Your task to perform on an android device: install app "Firefox Browser" Image 0: 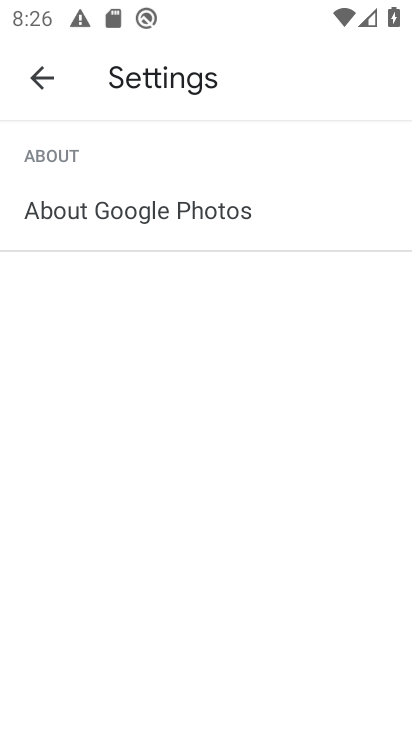
Step 0: press home button
Your task to perform on an android device: install app "Firefox Browser" Image 1: 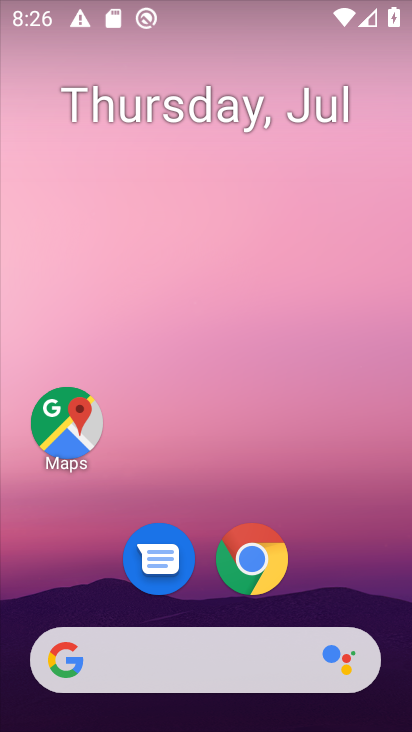
Step 1: drag from (209, 554) to (181, 0)
Your task to perform on an android device: install app "Firefox Browser" Image 2: 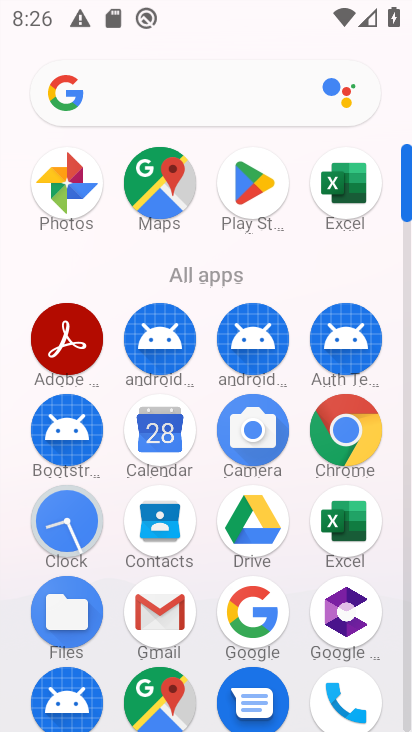
Step 2: click (251, 226)
Your task to perform on an android device: install app "Firefox Browser" Image 3: 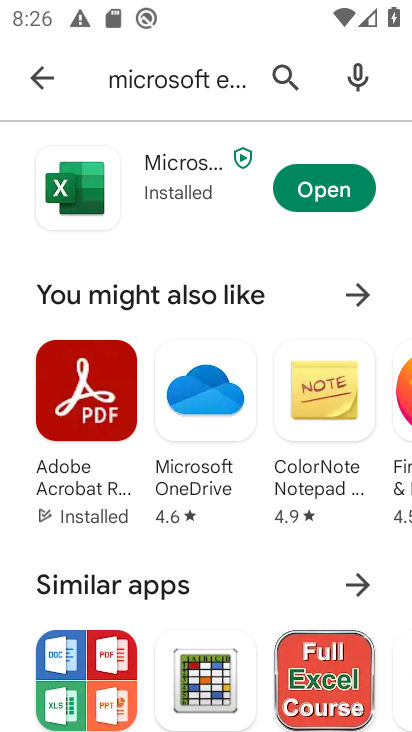
Step 3: click (286, 73)
Your task to perform on an android device: install app "Firefox Browser" Image 4: 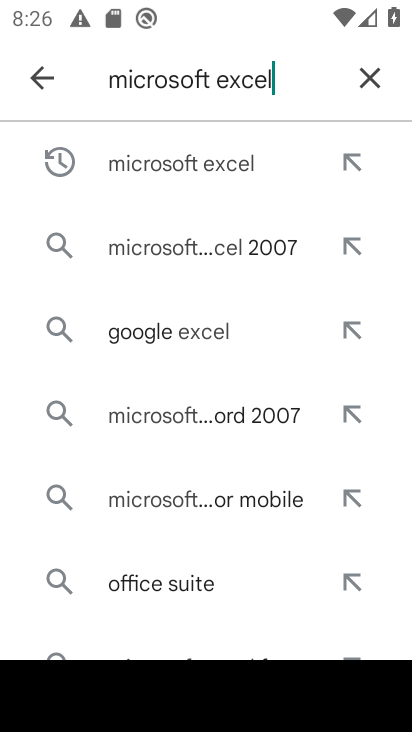
Step 4: click (370, 76)
Your task to perform on an android device: install app "Firefox Browser" Image 5: 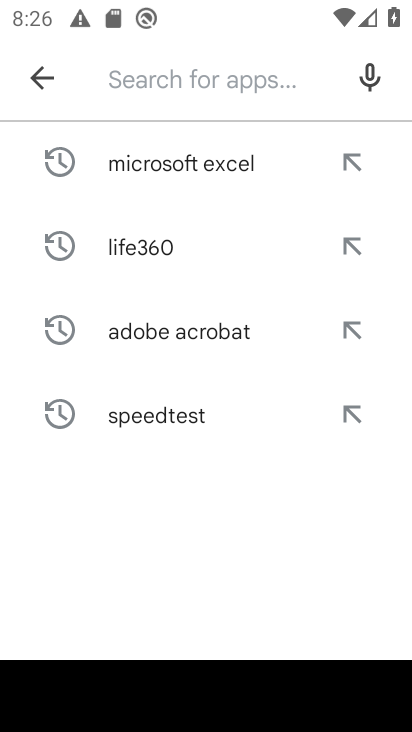
Step 5: type "firefox"
Your task to perform on an android device: install app "Firefox Browser" Image 6: 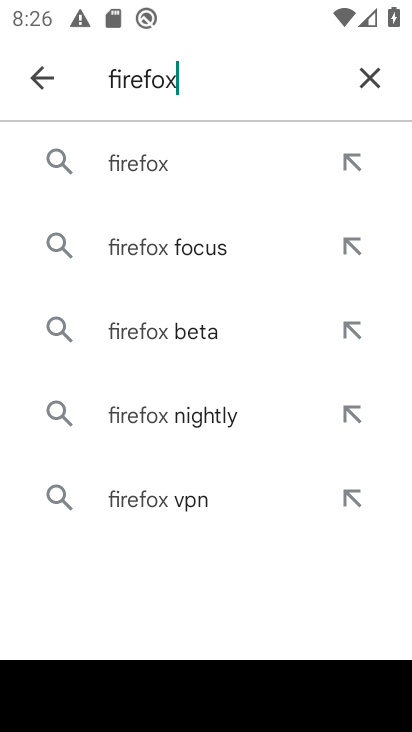
Step 6: click (170, 161)
Your task to perform on an android device: install app "Firefox Browser" Image 7: 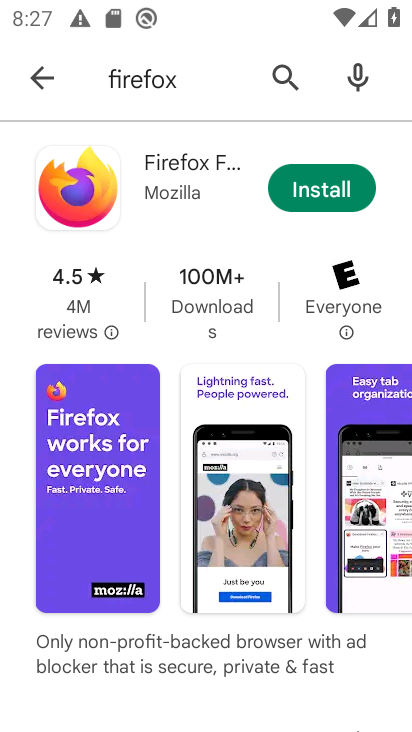
Step 7: click (321, 191)
Your task to perform on an android device: install app "Firefox Browser" Image 8: 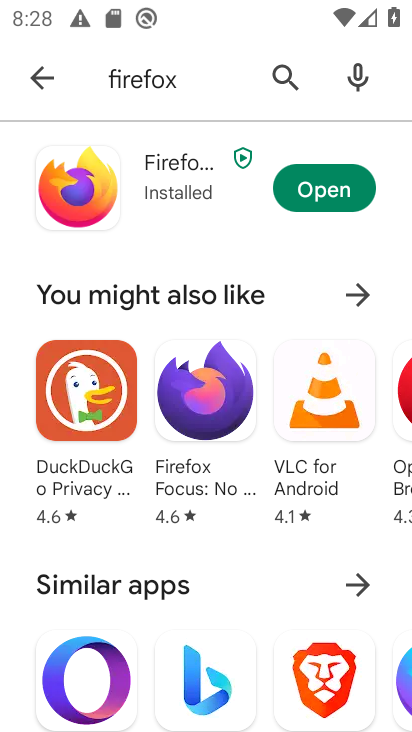
Step 8: task complete